Your task to perform on an android device: Open location settings Image 0: 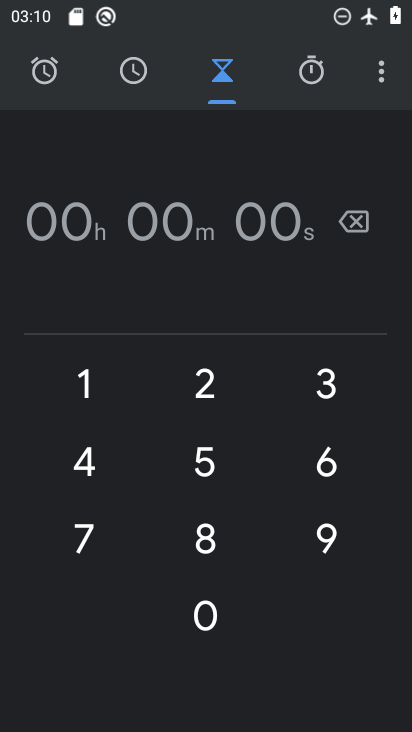
Step 0: press home button
Your task to perform on an android device: Open location settings Image 1: 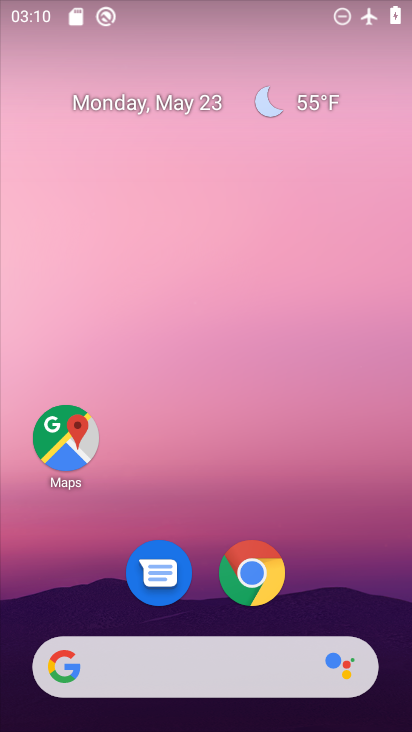
Step 1: drag from (325, 591) to (304, 67)
Your task to perform on an android device: Open location settings Image 2: 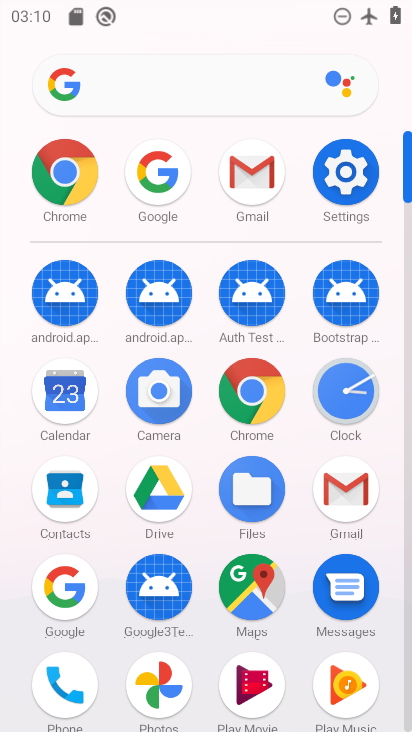
Step 2: click (339, 171)
Your task to perform on an android device: Open location settings Image 3: 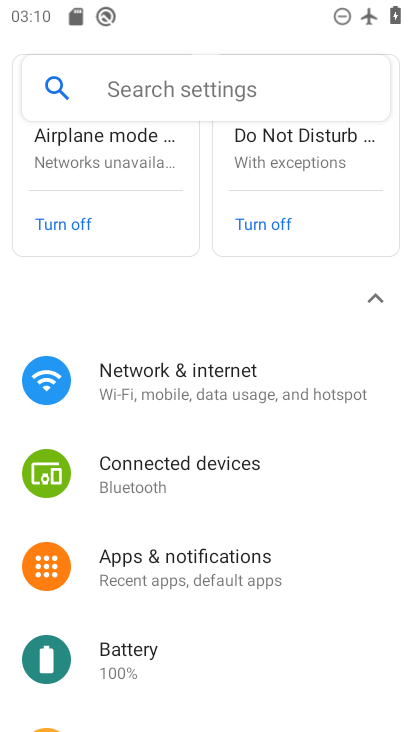
Step 3: drag from (251, 662) to (247, 227)
Your task to perform on an android device: Open location settings Image 4: 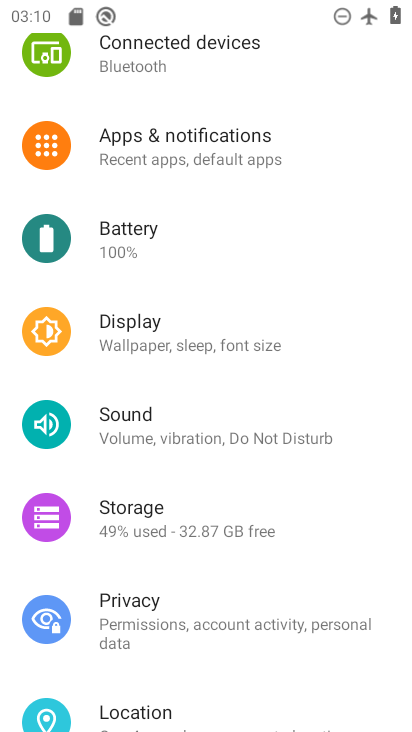
Step 4: click (161, 706)
Your task to perform on an android device: Open location settings Image 5: 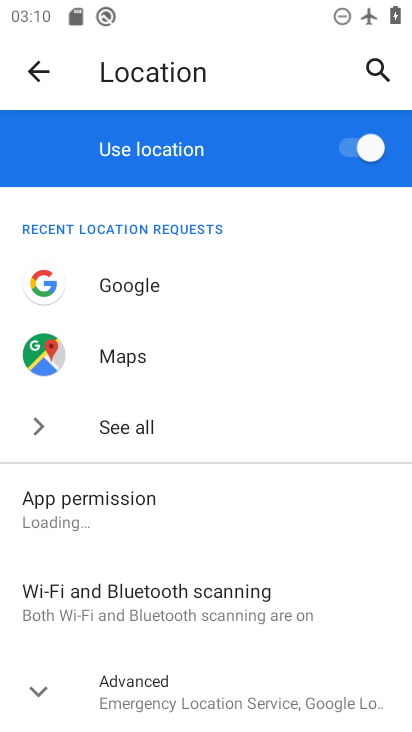
Step 5: drag from (309, 653) to (301, 199)
Your task to perform on an android device: Open location settings Image 6: 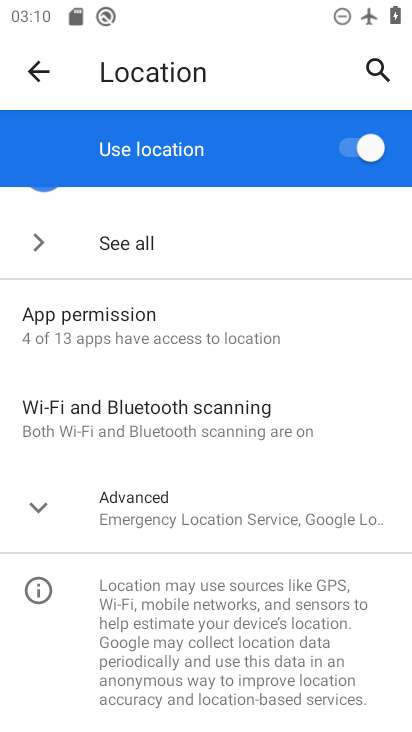
Step 6: click (232, 524)
Your task to perform on an android device: Open location settings Image 7: 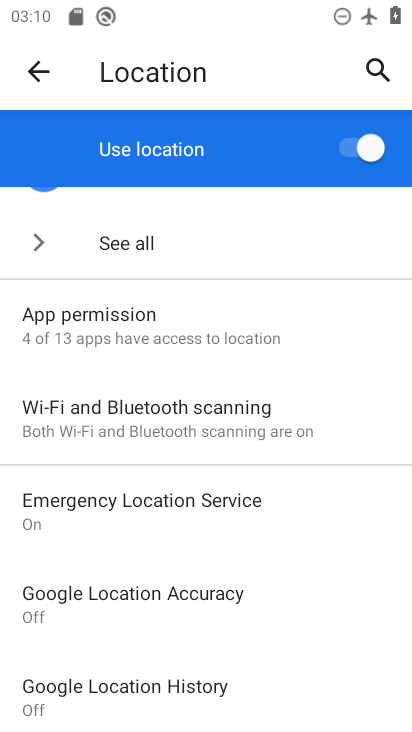
Step 7: task complete